Your task to perform on an android device: turn off priority inbox in the gmail app Image 0: 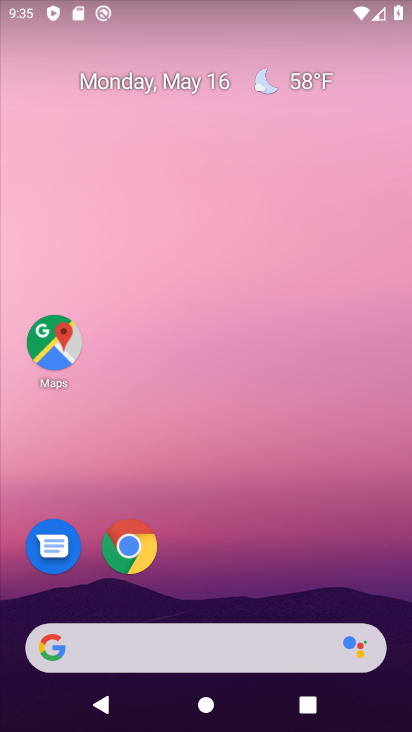
Step 0: drag from (267, 545) to (241, 170)
Your task to perform on an android device: turn off priority inbox in the gmail app Image 1: 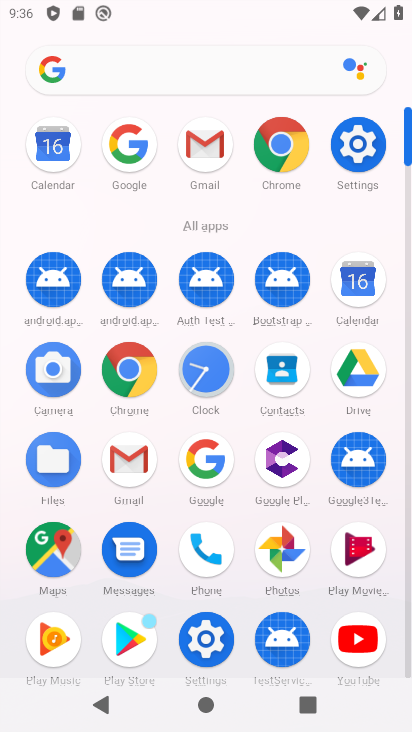
Step 1: click (206, 143)
Your task to perform on an android device: turn off priority inbox in the gmail app Image 2: 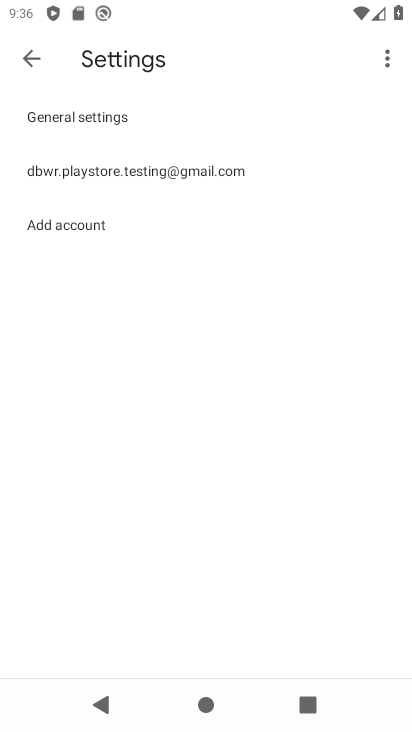
Step 2: click (217, 174)
Your task to perform on an android device: turn off priority inbox in the gmail app Image 3: 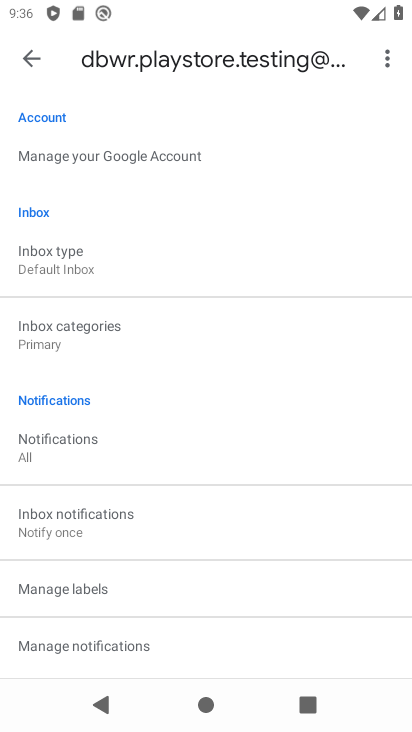
Step 3: click (74, 260)
Your task to perform on an android device: turn off priority inbox in the gmail app Image 4: 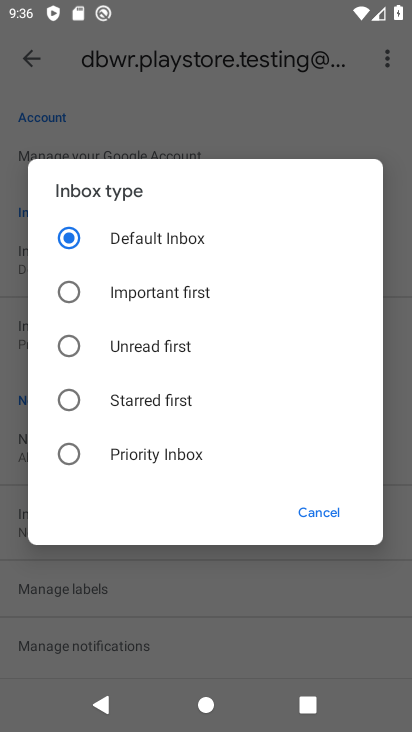
Step 4: click (64, 240)
Your task to perform on an android device: turn off priority inbox in the gmail app Image 5: 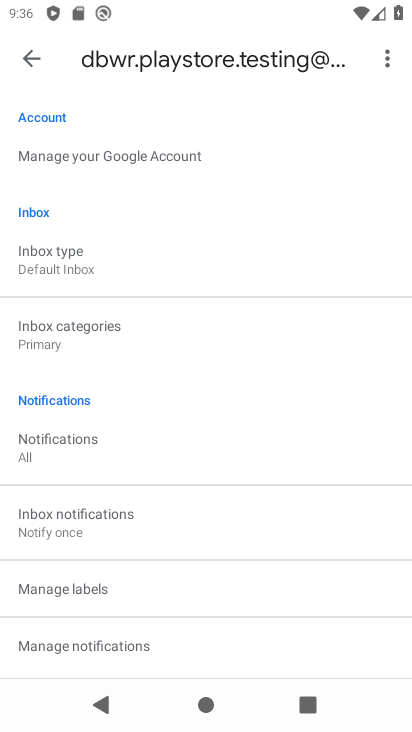
Step 5: task complete